Your task to perform on an android device: set the timer Image 0: 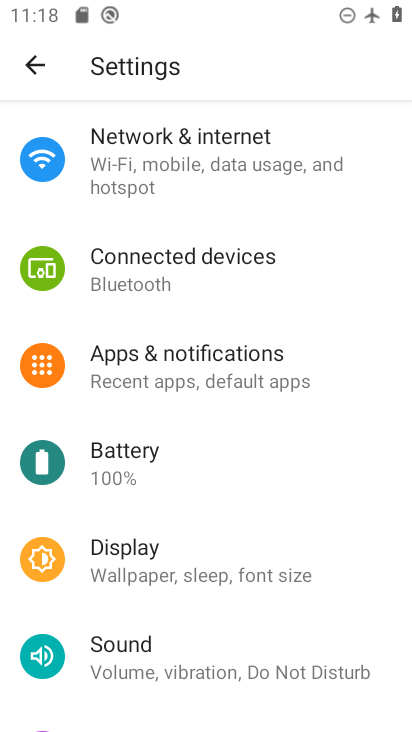
Step 0: press back button
Your task to perform on an android device: set the timer Image 1: 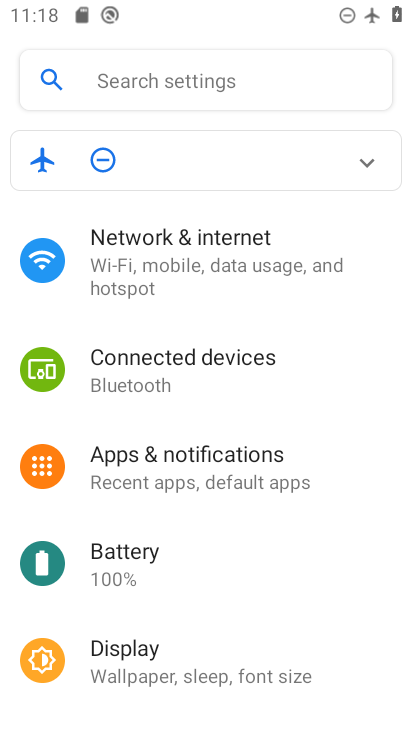
Step 1: press back button
Your task to perform on an android device: set the timer Image 2: 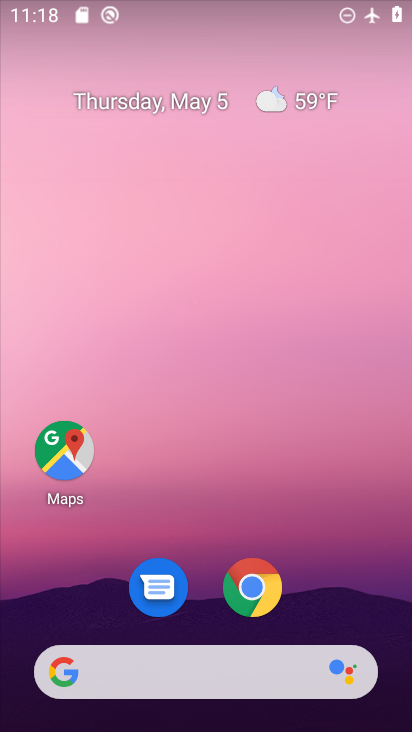
Step 2: drag from (342, 578) to (345, 161)
Your task to perform on an android device: set the timer Image 3: 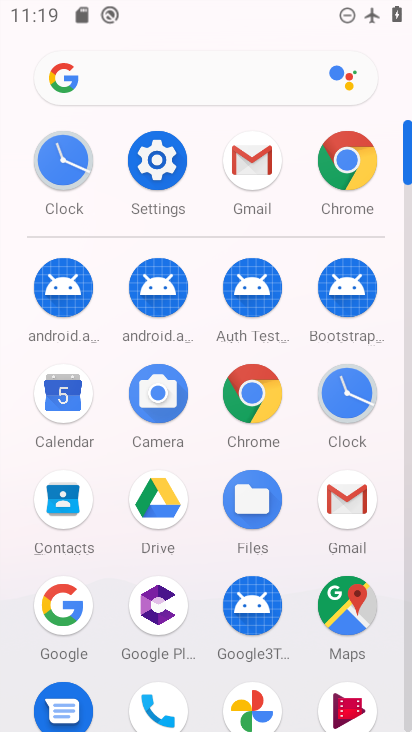
Step 3: drag from (6, 540) to (17, 257)
Your task to perform on an android device: set the timer Image 4: 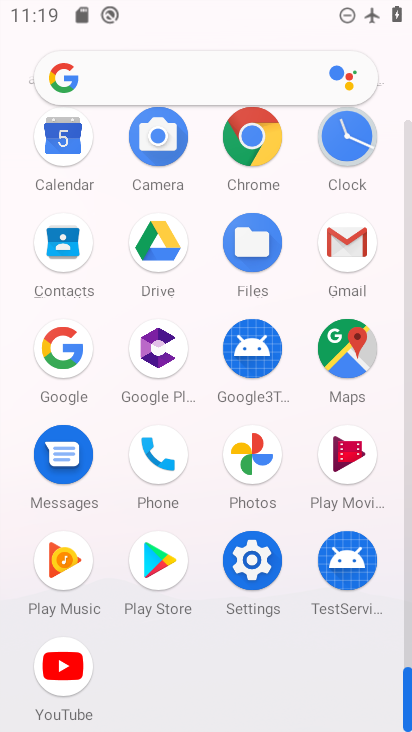
Step 4: drag from (8, 434) to (10, 218)
Your task to perform on an android device: set the timer Image 5: 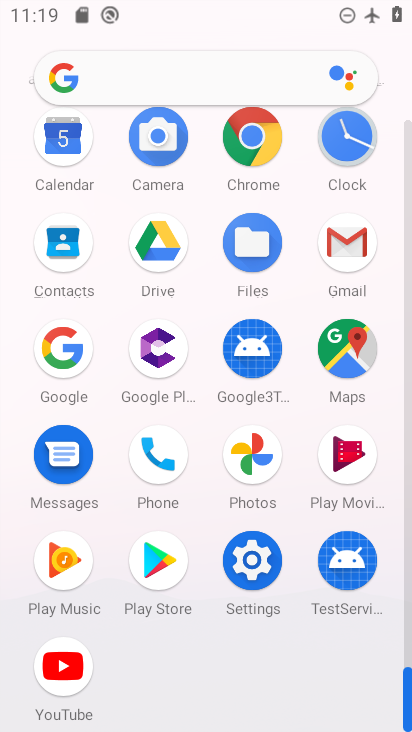
Step 5: click (341, 133)
Your task to perform on an android device: set the timer Image 6: 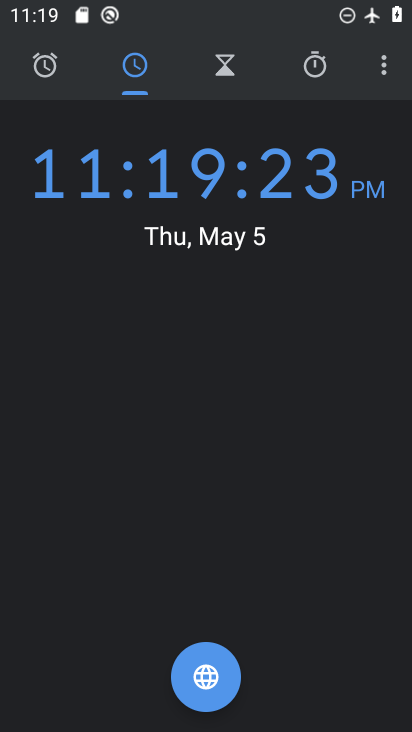
Step 6: click (206, 69)
Your task to perform on an android device: set the timer Image 7: 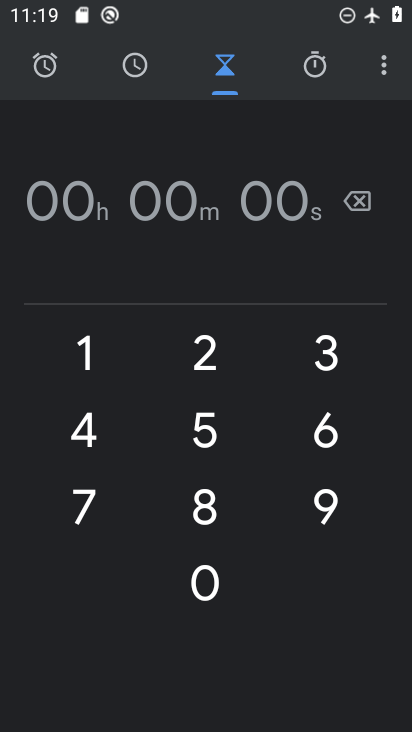
Step 7: click (137, 54)
Your task to perform on an android device: set the timer Image 8: 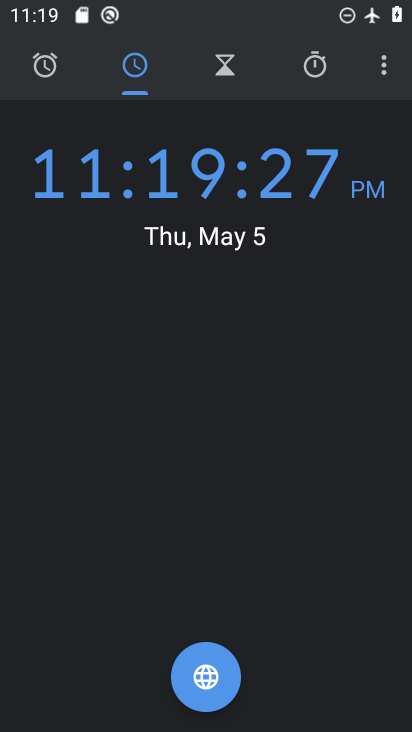
Step 8: click (56, 57)
Your task to perform on an android device: set the timer Image 9: 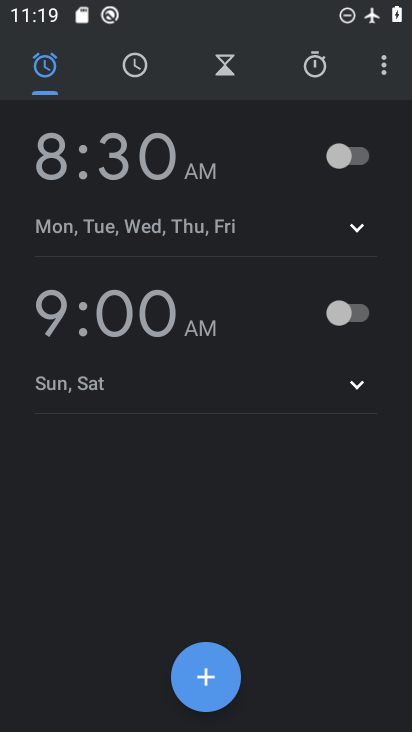
Step 9: click (301, 58)
Your task to perform on an android device: set the timer Image 10: 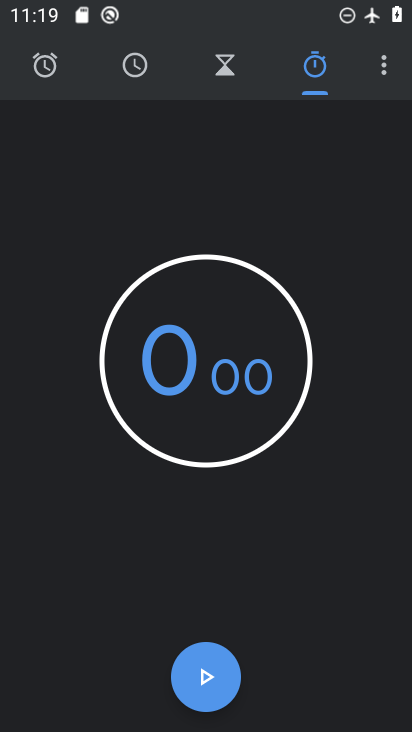
Step 10: click (233, 65)
Your task to perform on an android device: set the timer Image 11: 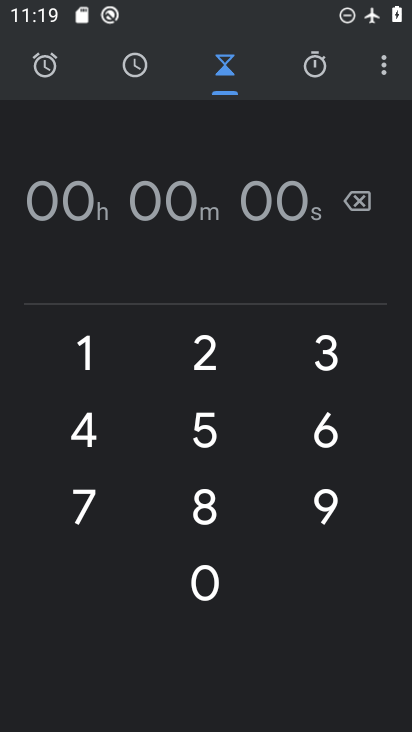
Step 11: click (204, 366)
Your task to perform on an android device: set the timer Image 12: 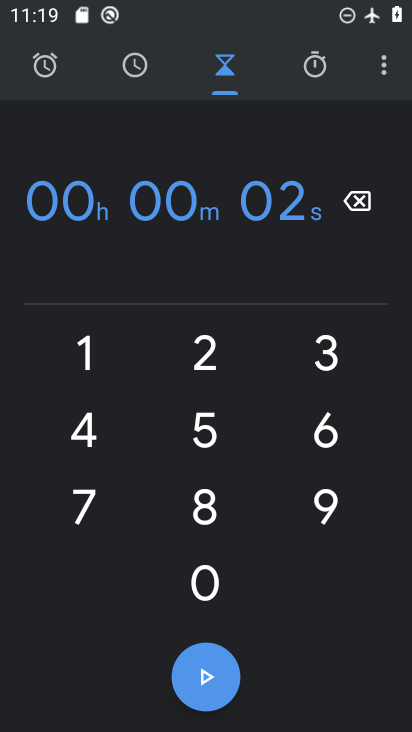
Step 12: click (83, 340)
Your task to perform on an android device: set the timer Image 13: 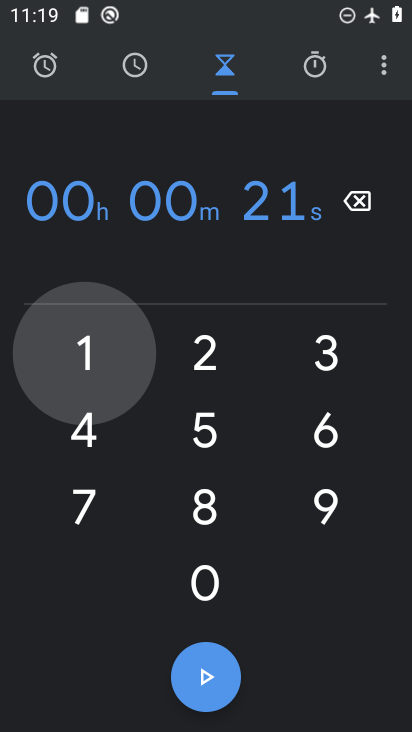
Step 13: click (82, 401)
Your task to perform on an android device: set the timer Image 14: 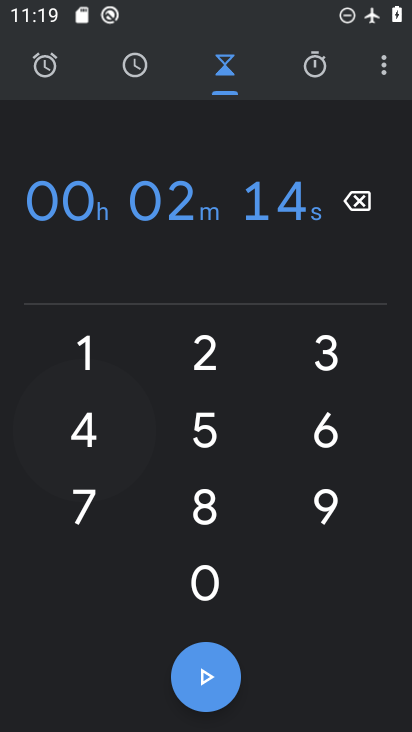
Step 14: click (223, 407)
Your task to perform on an android device: set the timer Image 15: 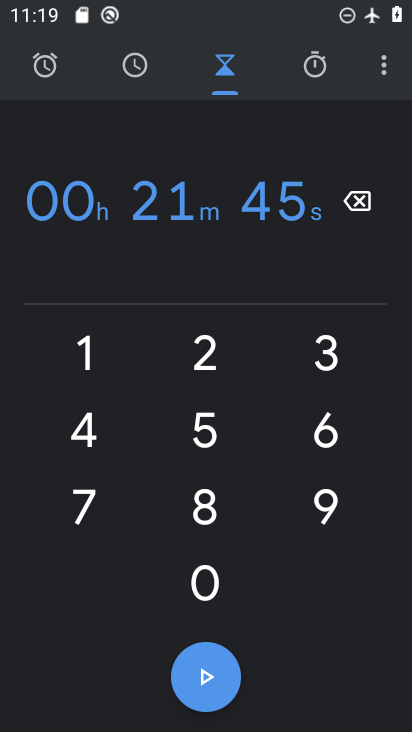
Step 15: click (337, 422)
Your task to perform on an android device: set the timer Image 16: 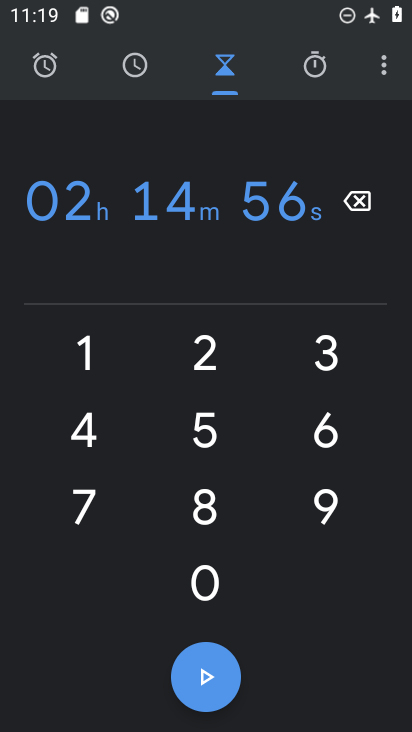
Step 16: click (210, 669)
Your task to perform on an android device: set the timer Image 17: 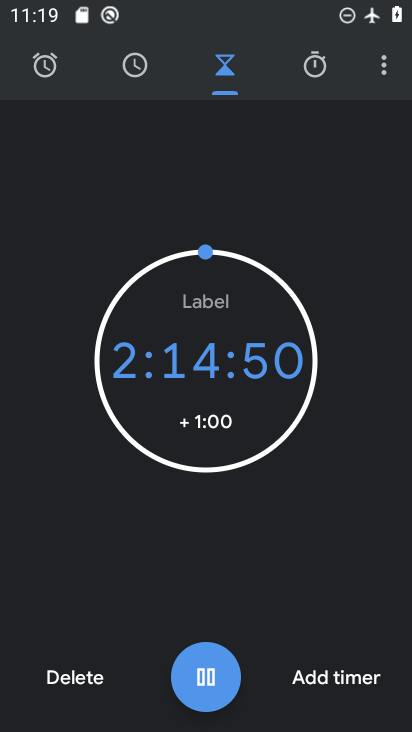
Step 17: task complete